Your task to perform on an android device: add a contact in the contacts app Image 0: 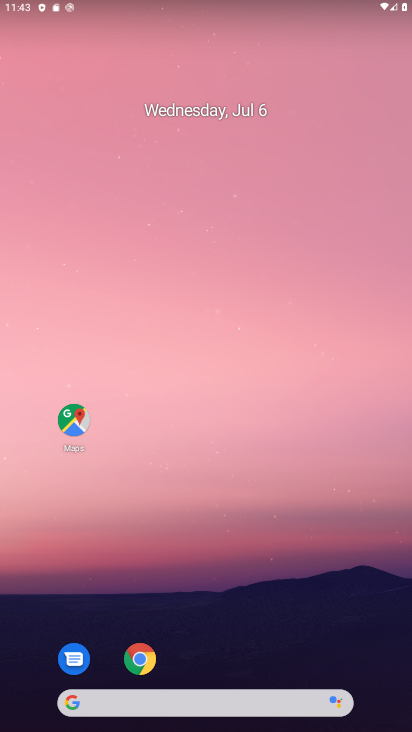
Step 0: click (172, 91)
Your task to perform on an android device: add a contact in the contacts app Image 1: 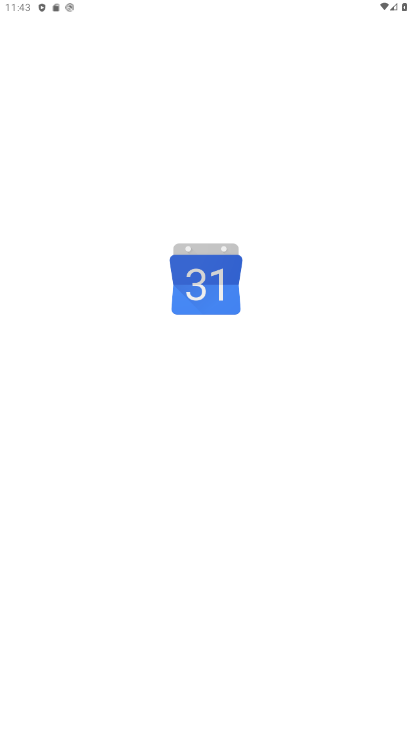
Step 1: drag from (218, 457) to (173, 133)
Your task to perform on an android device: add a contact in the contacts app Image 2: 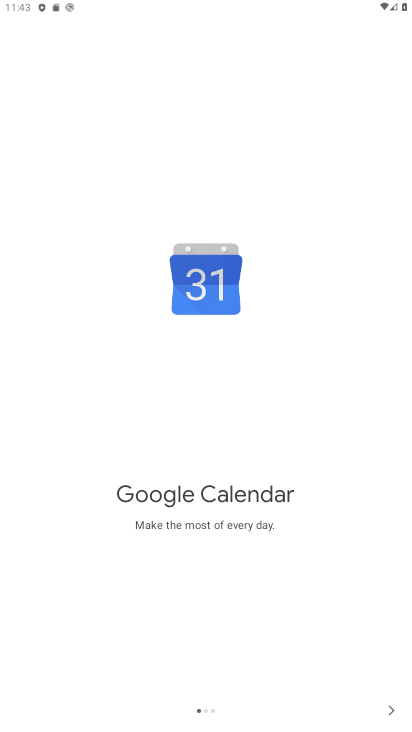
Step 2: press back button
Your task to perform on an android device: add a contact in the contacts app Image 3: 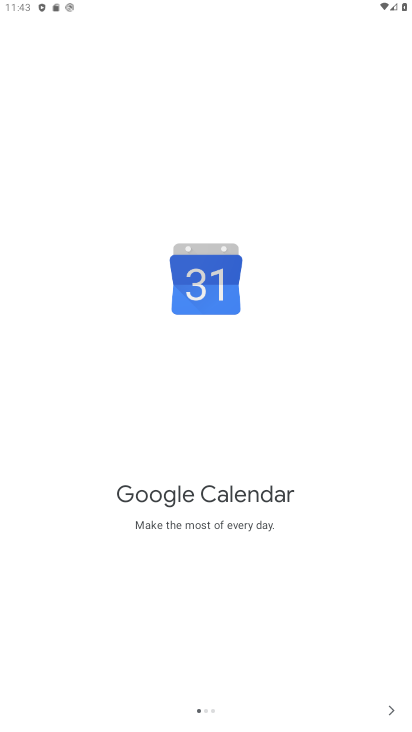
Step 3: press back button
Your task to perform on an android device: add a contact in the contacts app Image 4: 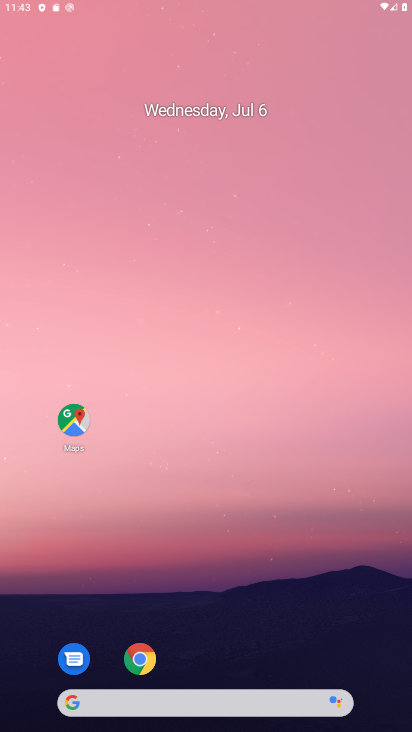
Step 4: press back button
Your task to perform on an android device: add a contact in the contacts app Image 5: 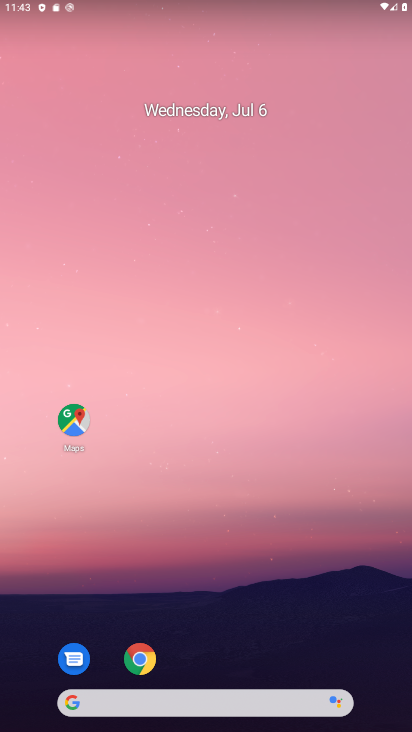
Step 5: drag from (201, 678) to (134, 35)
Your task to perform on an android device: add a contact in the contacts app Image 6: 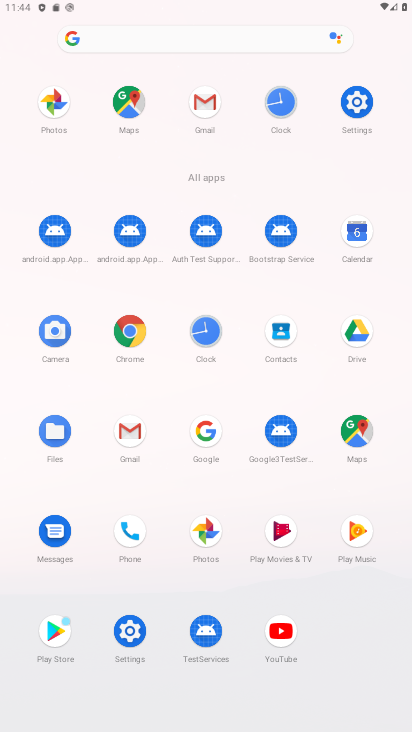
Step 6: click (273, 339)
Your task to perform on an android device: add a contact in the contacts app Image 7: 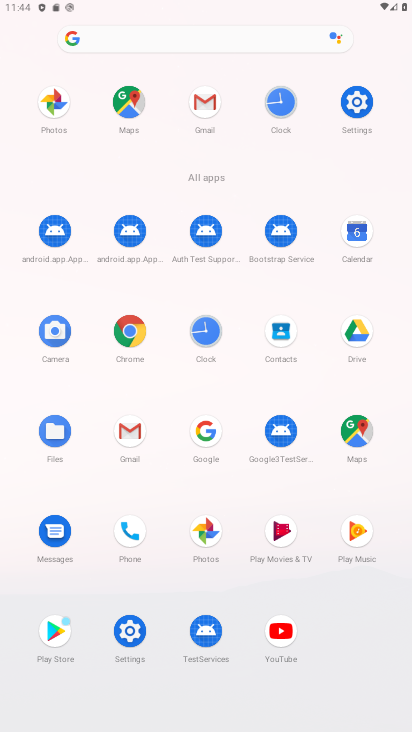
Step 7: click (274, 336)
Your task to perform on an android device: add a contact in the contacts app Image 8: 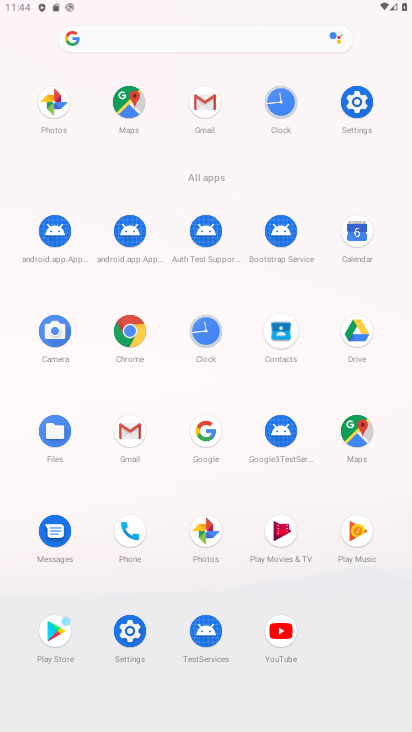
Step 8: click (275, 335)
Your task to perform on an android device: add a contact in the contacts app Image 9: 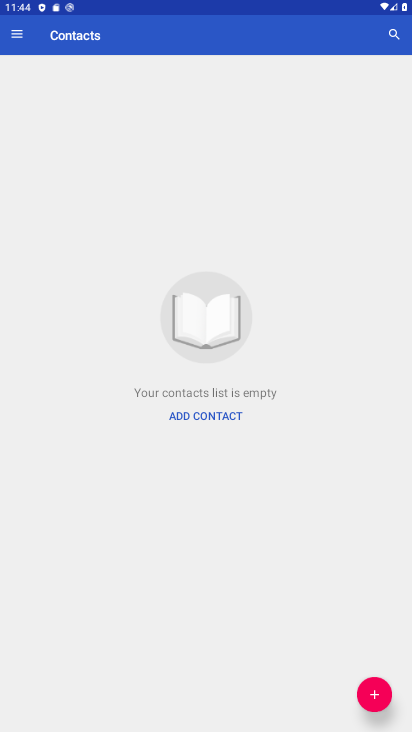
Step 9: click (389, 700)
Your task to perform on an android device: add a contact in the contacts app Image 10: 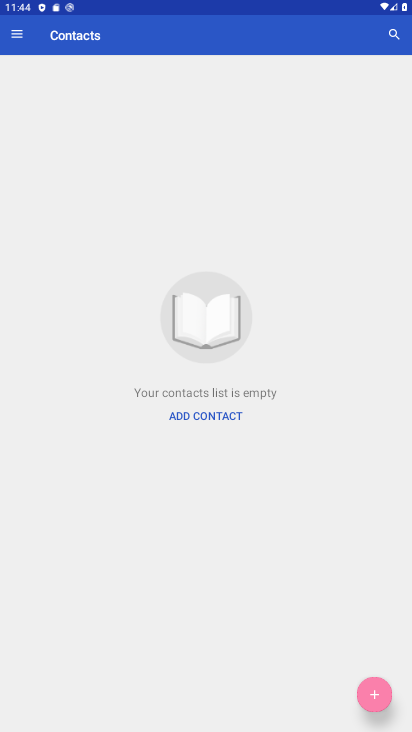
Step 10: click (385, 696)
Your task to perform on an android device: add a contact in the contacts app Image 11: 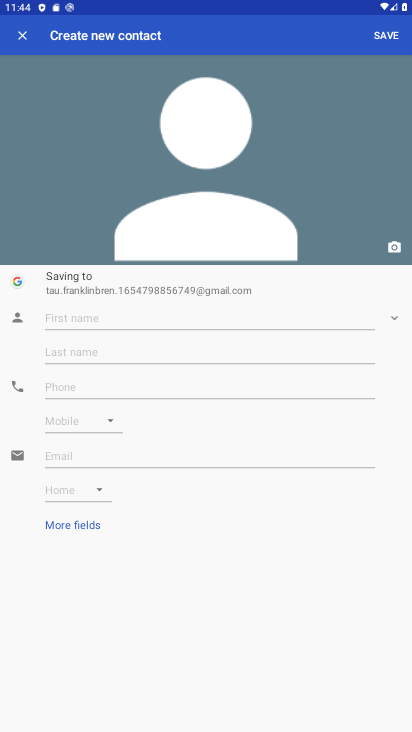
Step 11: click (65, 313)
Your task to perform on an android device: add a contact in the contacts app Image 12: 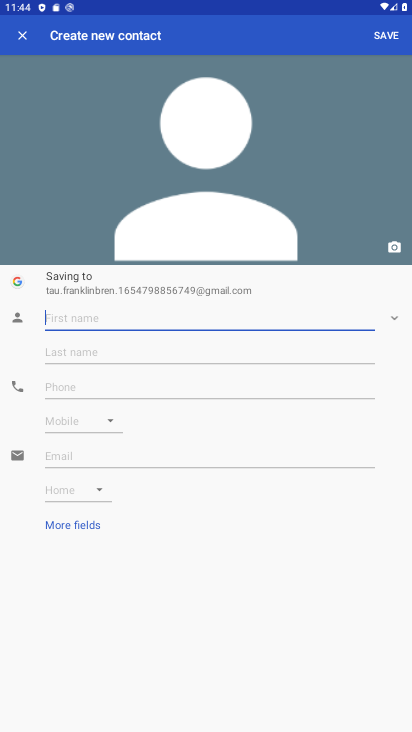
Step 12: click (68, 317)
Your task to perform on an android device: add a contact in the contacts app Image 13: 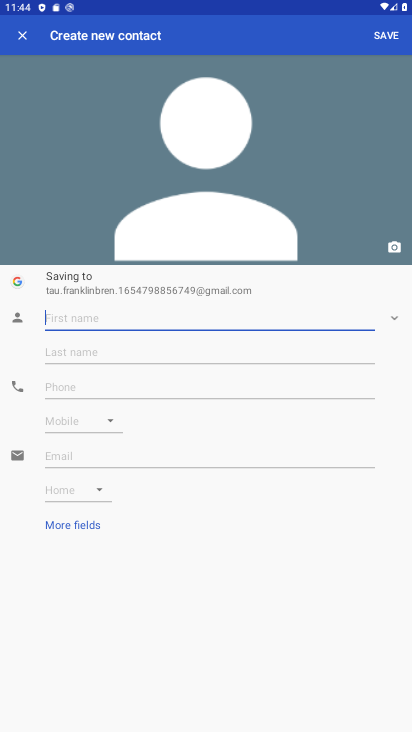
Step 13: click (69, 317)
Your task to perform on an android device: add a contact in the contacts app Image 14: 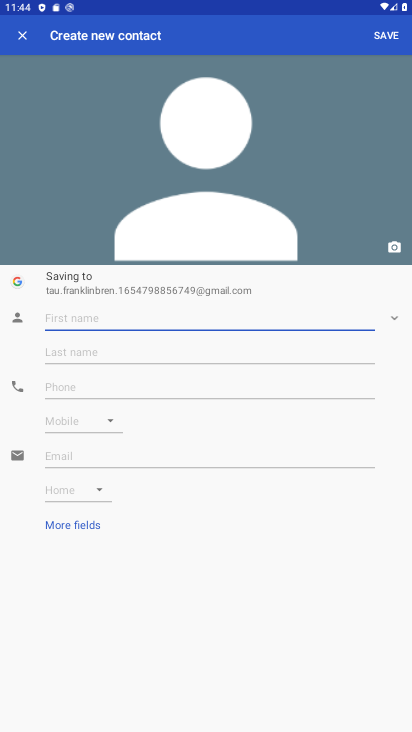
Step 14: click (68, 322)
Your task to perform on an android device: add a contact in the contacts app Image 15: 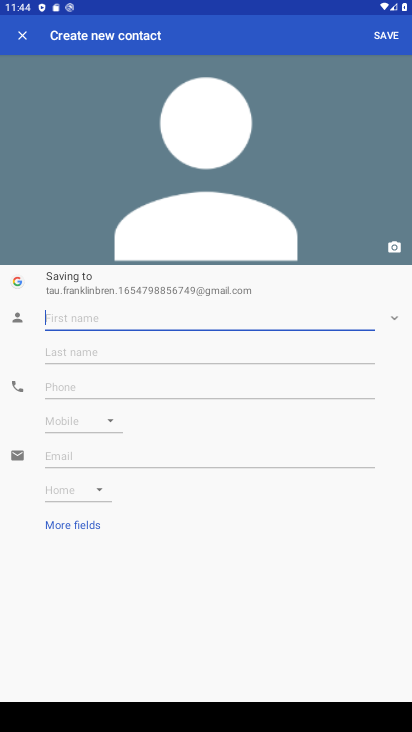
Step 15: type "meena"
Your task to perform on an android device: add a contact in the contacts app Image 16: 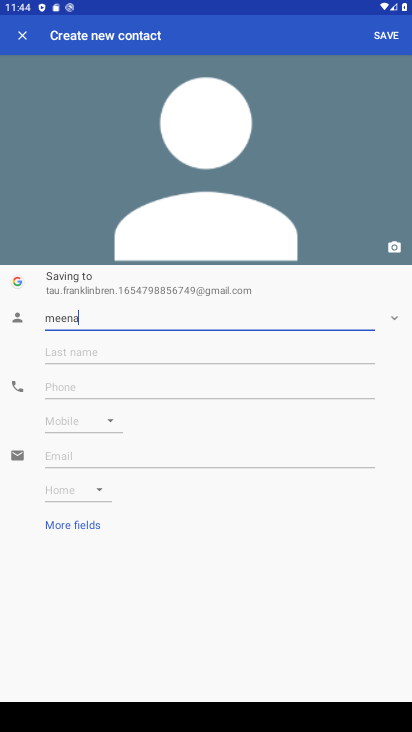
Step 16: click (77, 400)
Your task to perform on an android device: add a contact in the contacts app Image 17: 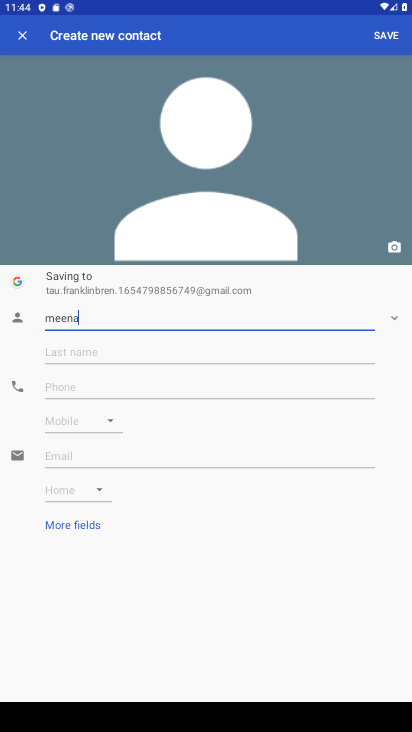
Step 17: click (77, 400)
Your task to perform on an android device: add a contact in the contacts app Image 18: 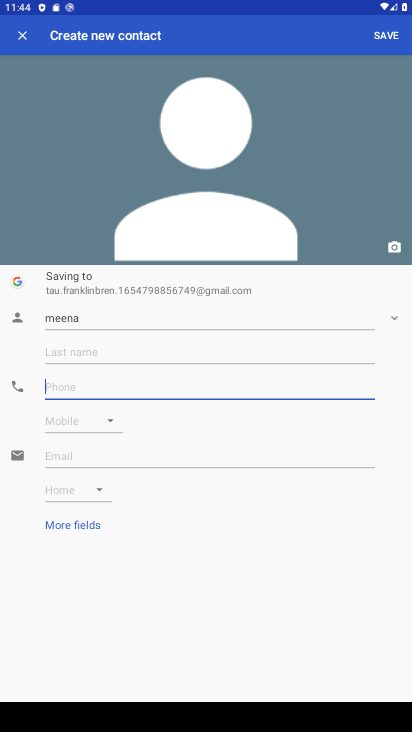
Step 18: click (77, 400)
Your task to perform on an android device: add a contact in the contacts app Image 19: 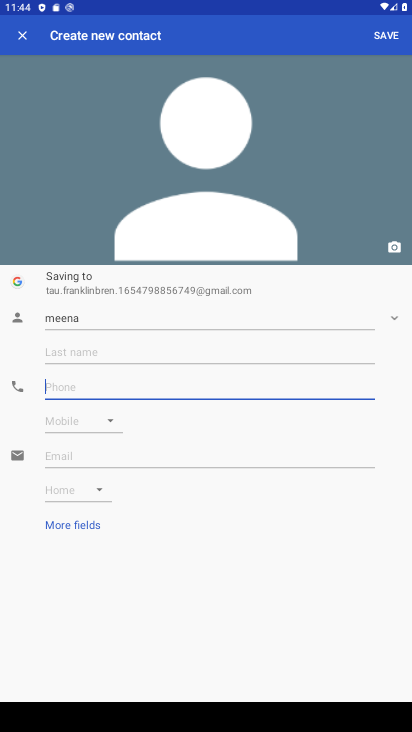
Step 19: type "78934287867"
Your task to perform on an android device: add a contact in the contacts app Image 20: 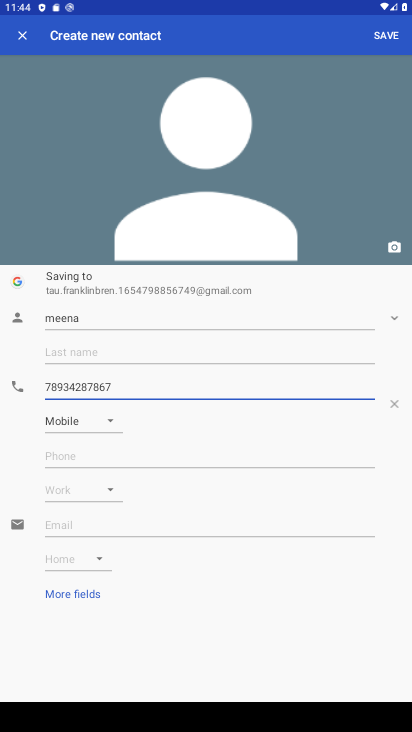
Step 20: click (400, 22)
Your task to perform on an android device: add a contact in the contacts app Image 21: 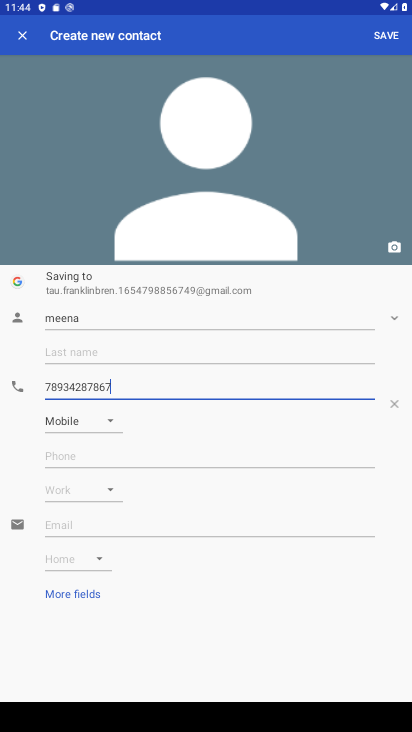
Step 21: click (402, 66)
Your task to perform on an android device: add a contact in the contacts app Image 22: 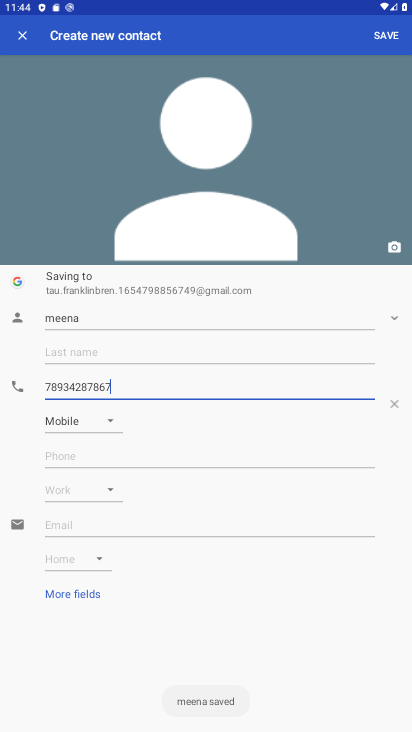
Step 22: click (383, 28)
Your task to perform on an android device: add a contact in the contacts app Image 23: 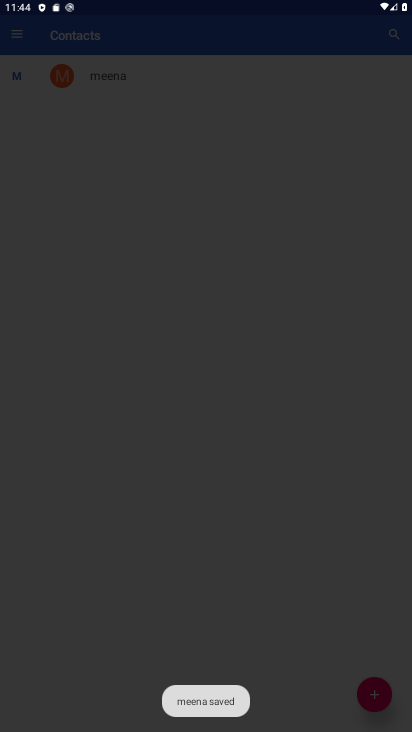
Step 23: click (388, 33)
Your task to perform on an android device: add a contact in the contacts app Image 24: 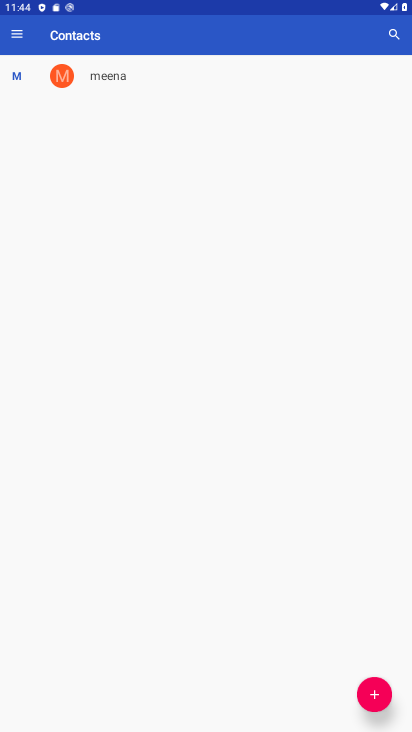
Step 24: task complete